Your task to perform on an android device: What's on my calendar tomorrow? Image 0: 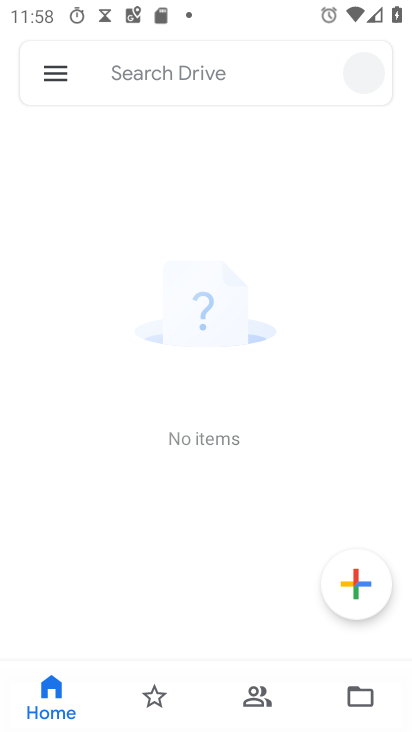
Step 0: press home button
Your task to perform on an android device: What's on my calendar tomorrow? Image 1: 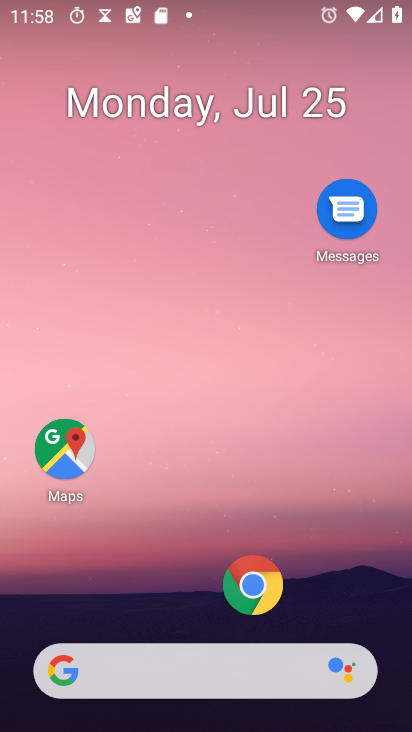
Step 1: drag from (189, 674) to (285, 161)
Your task to perform on an android device: What's on my calendar tomorrow? Image 2: 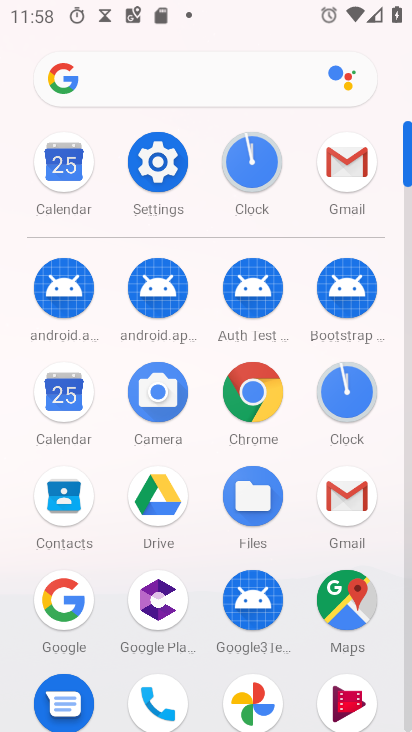
Step 2: click (58, 395)
Your task to perform on an android device: What's on my calendar tomorrow? Image 3: 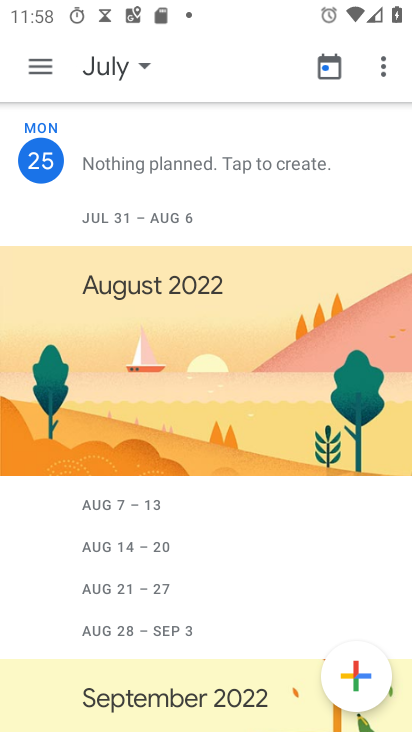
Step 3: click (116, 63)
Your task to perform on an android device: What's on my calendar tomorrow? Image 4: 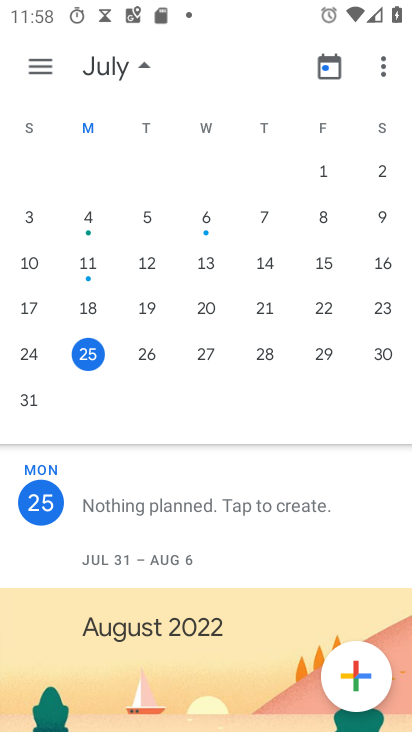
Step 4: click (152, 356)
Your task to perform on an android device: What's on my calendar tomorrow? Image 5: 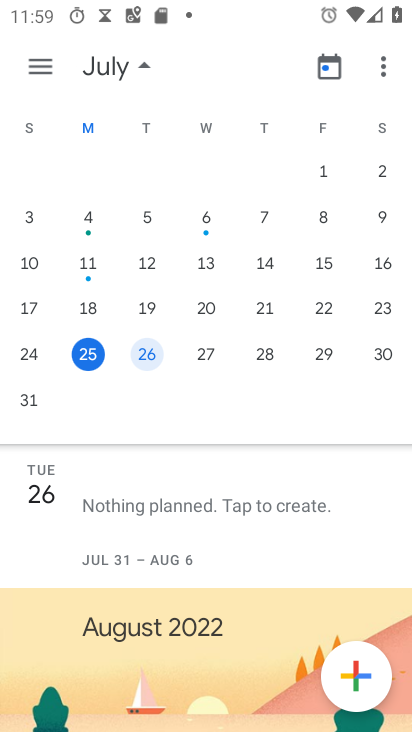
Step 5: click (33, 69)
Your task to perform on an android device: What's on my calendar tomorrow? Image 6: 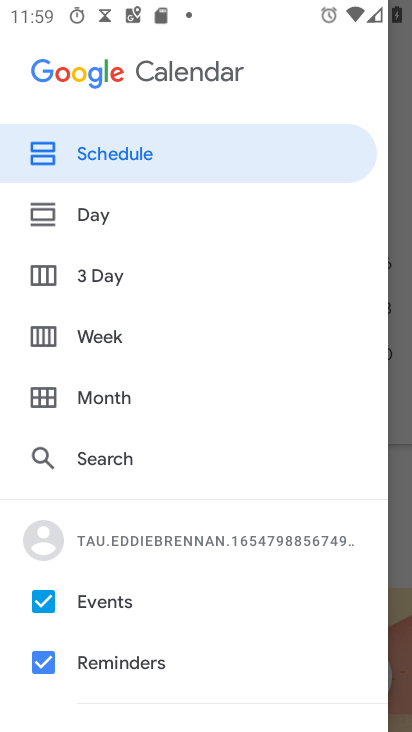
Step 6: click (96, 214)
Your task to perform on an android device: What's on my calendar tomorrow? Image 7: 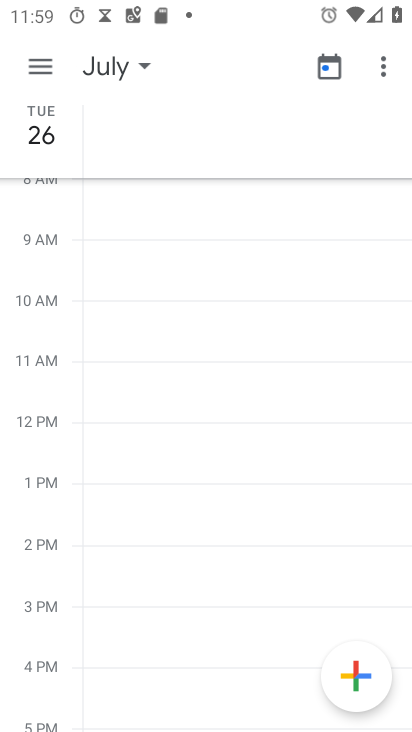
Step 7: click (39, 65)
Your task to perform on an android device: What's on my calendar tomorrow? Image 8: 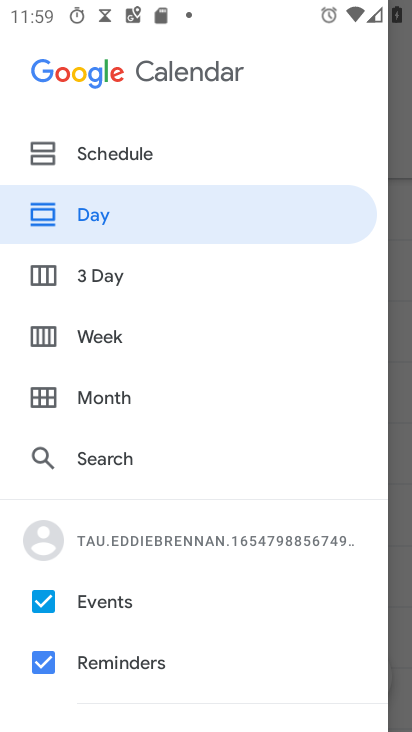
Step 8: click (116, 155)
Your task to perform on an android device: What's on my calendar tomorrow? Image 9: 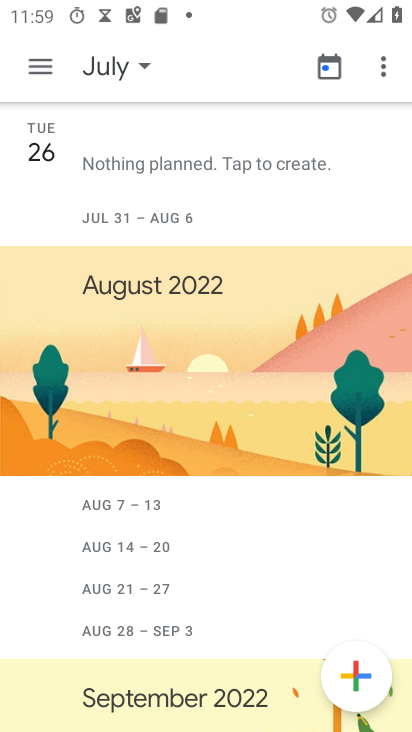
Step 9: task complete